Your task to perform on an android device: Search for a new eyeshadow on Sephora Image 0: 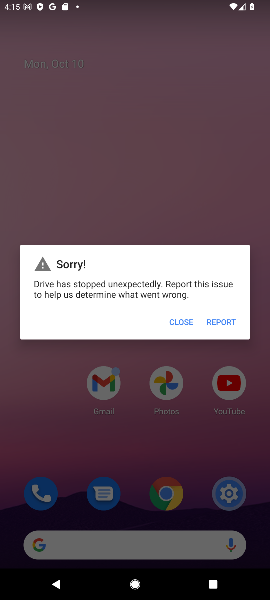
Step 0: click (200, 321)
Your task to perform on an android device: Search for a new eyeshadow on Sephora Image 1: 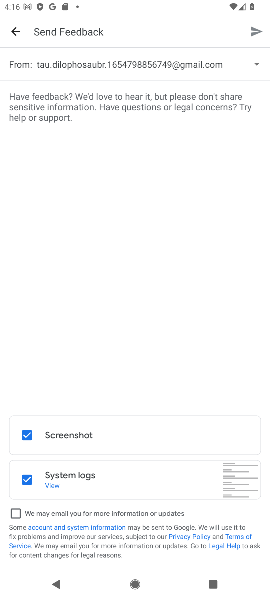
Step 1: press home button
Your task to perform on an android device: Search for a new eyeshadow on Sephora Image 2: 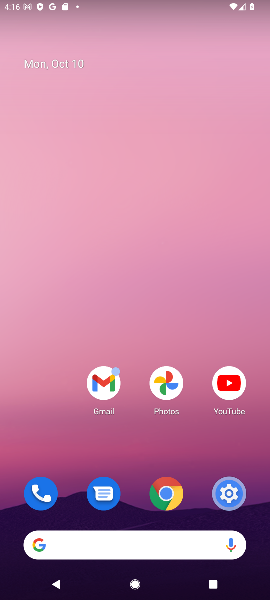
Step 2: click (107, 546)
Your task to perform on an android device: Search for a new eyeshadow on Sephora Image 3: 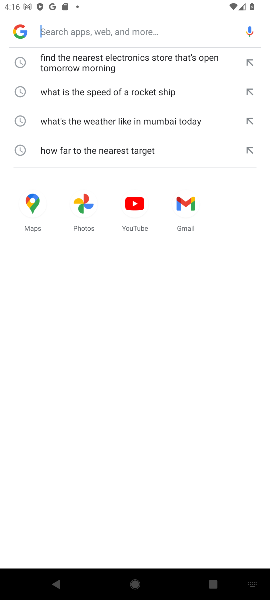
Step 3: type "Search for a new eyeshadow on Sephora"
Your task to perform on an android device: Search for a new eyeshadow on Sephora Image 4: 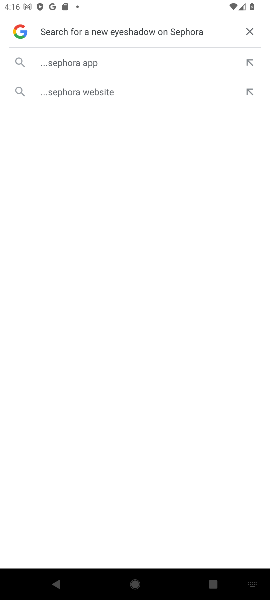
Step 4: click (102, 75)
Your task to perform on an android device: Search for a new eyeshadow on Sephora Image 5: 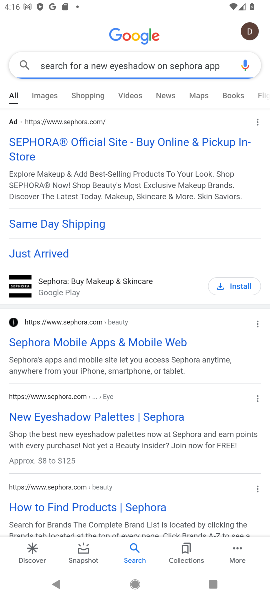
Step 5: task complete